Your task to perform on an android device: Open display settings Image 0: 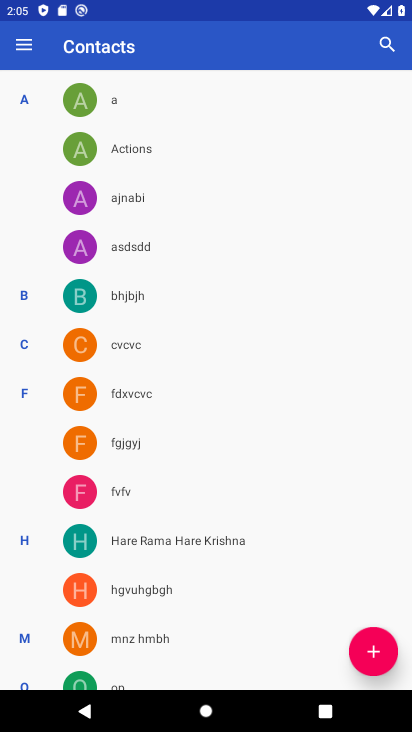
Step 0: press home button
Your task to perform on an android device: Open display settings Image 1: 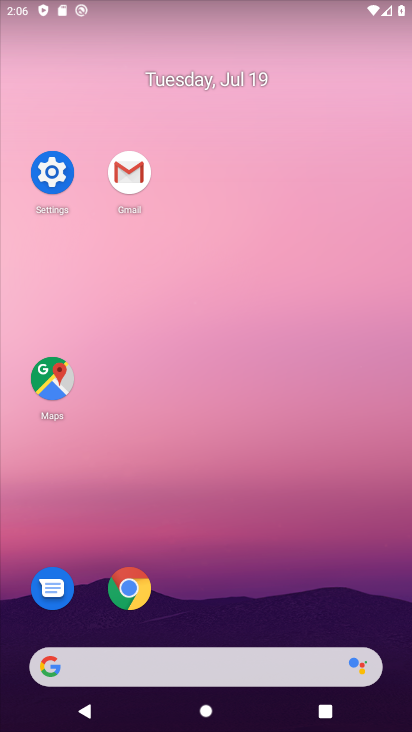
Step 1: press home button
Your task to perform on an android device: Open display settings Image 2: 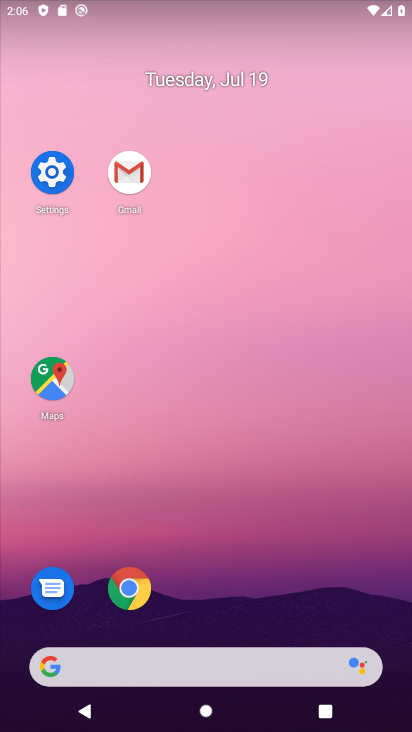
Step 2: click (55, 178)
Your task to perform on an android device: Open display settings Image 3: 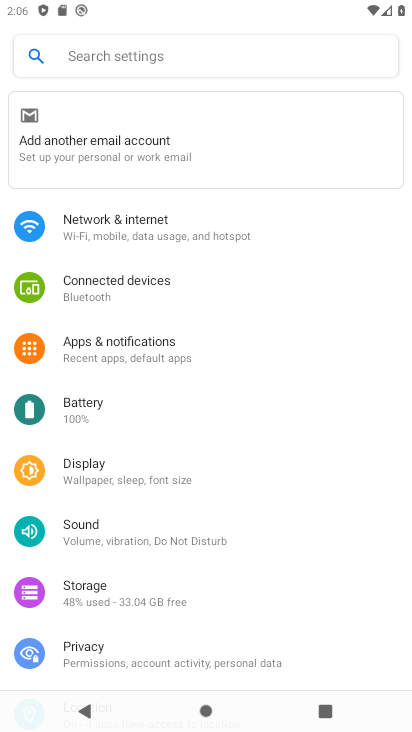
Step 3: click (154, 475)
Your task to perform on an android device: Open display settings Image 4: 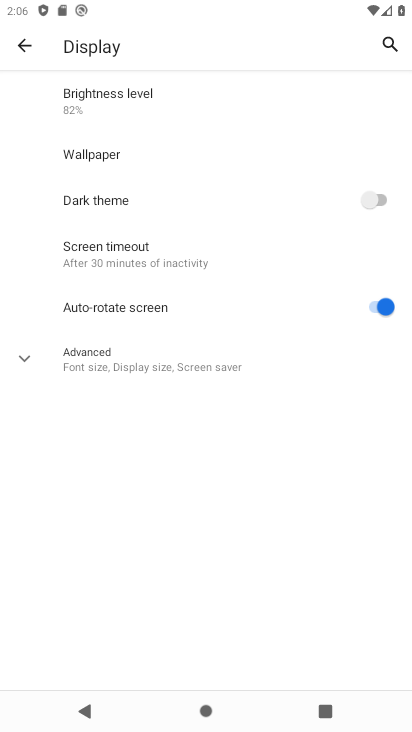
Step 4: task complete